Your task to perform on an android device: uninstall "Adobe Acrobat Reader" Image 0: 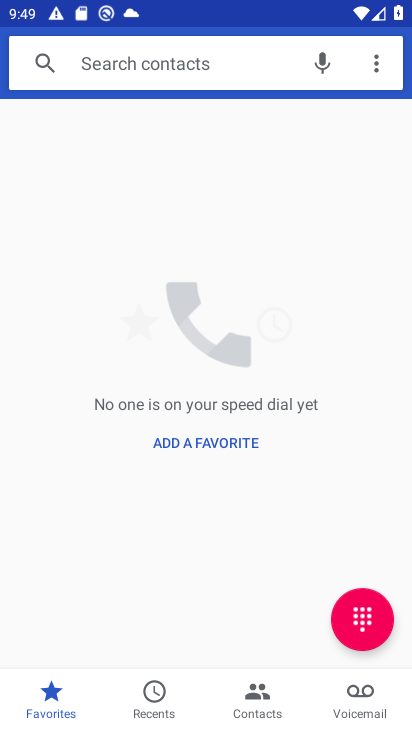
Step 0: press home button
Your task to perform on an android device: uninstall "Adobe Acrobat Reader" Image 1: 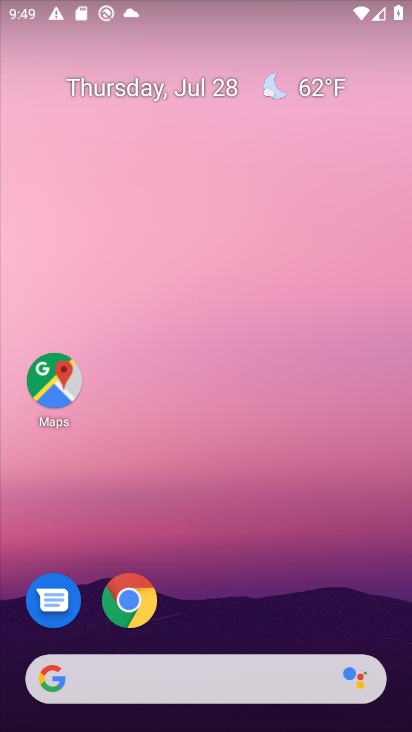
Step 1: drag from (225, 620) to (260, 32)
Your task to perform on an android device: uninstall "Adobe Acrobat Reader" Image 2: 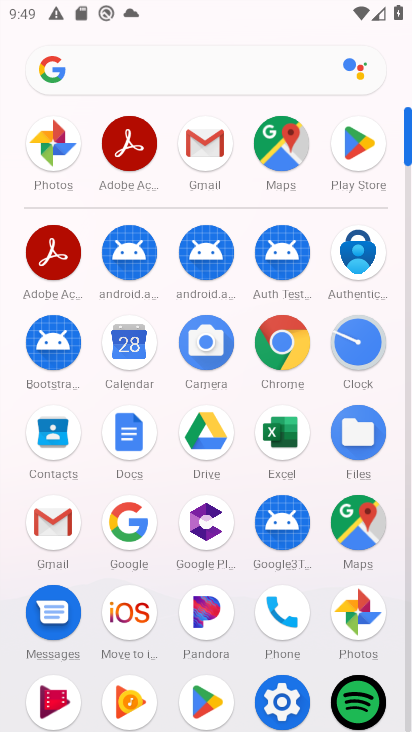
Step 2: click (139, 159)
Your task to perform on an android device: uninstall "Adobe Acrobat Reader" Image 3: 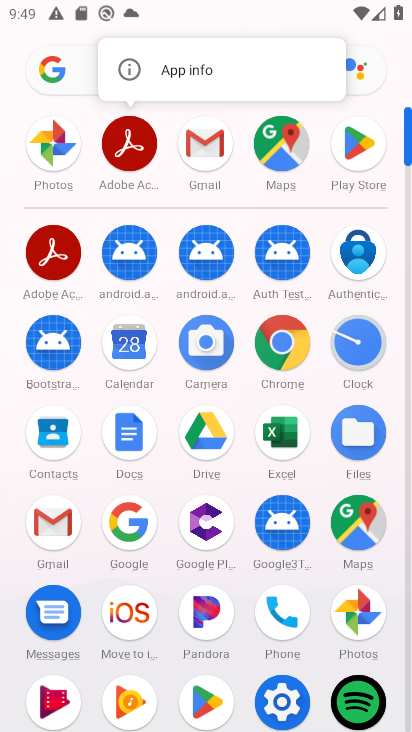
Step 3: click (163, 74)
Your task to perform on an android device: uninstall "Adobe Acrobat Reader" Image 4: 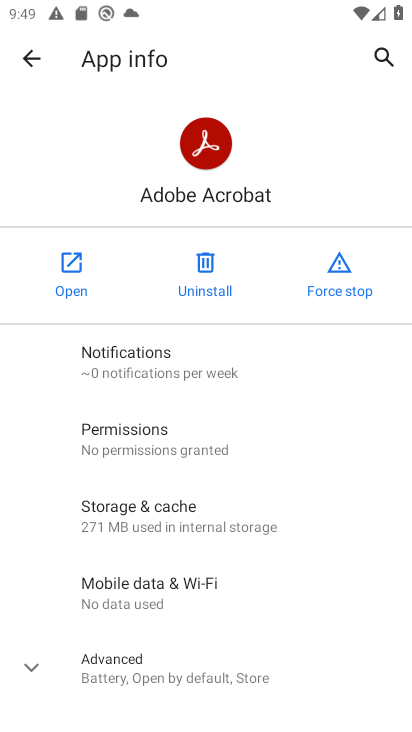
Step 4: click (197, 278)
Your task to perform on an android device: uninstall "Adobe Acrobat Reader" Image 5: 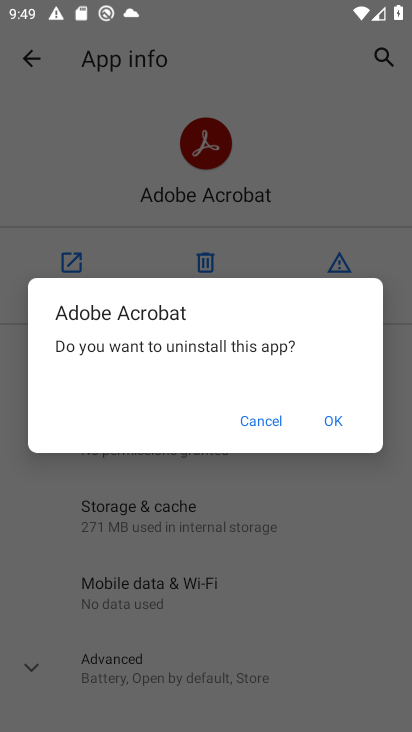
Step 5: click (326, 422)
Your task to perform on an android device: uninstall "Adobe Acrobat Reader" Image 6: 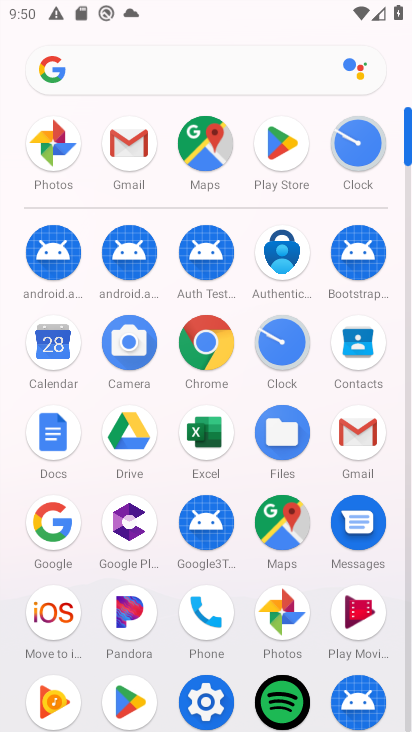
Step 6: task complete